Your task to perform on an android device: manage bookmarks in the chrome app Image 0: 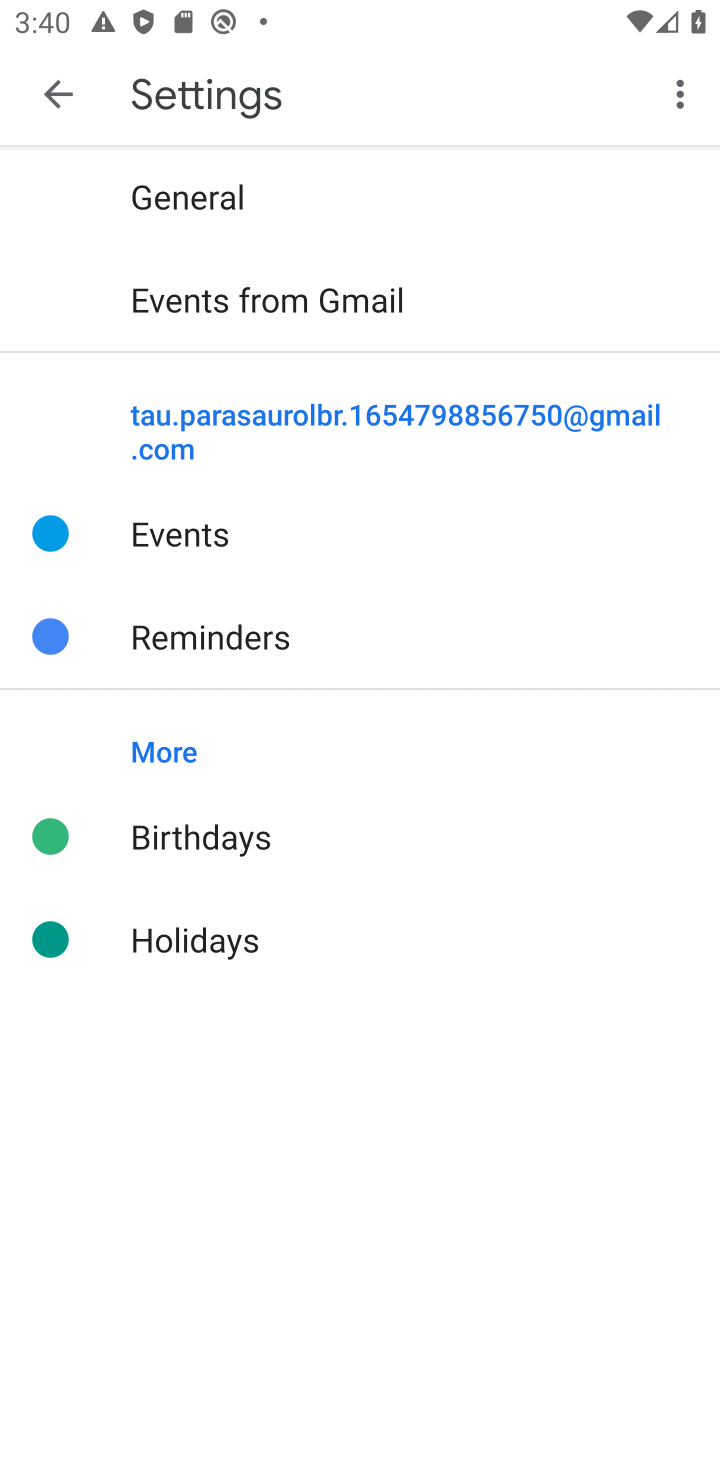
Step 0: press home button
Your task to perform on an android device: manage bookmarks in the chrome app Image 1: 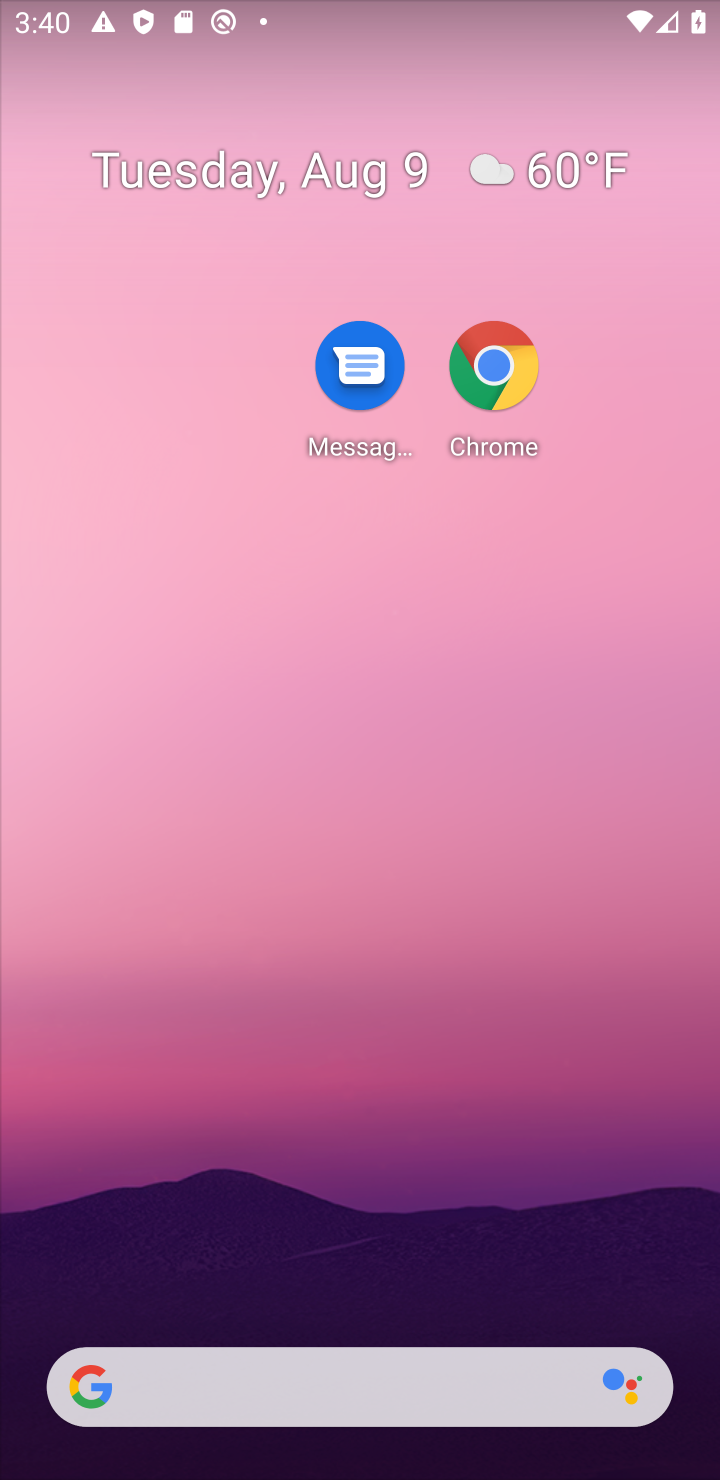
Step 1: click (511, 349)
Your task to perform on an android device: manage bookmarks in the chrome app Image 2: 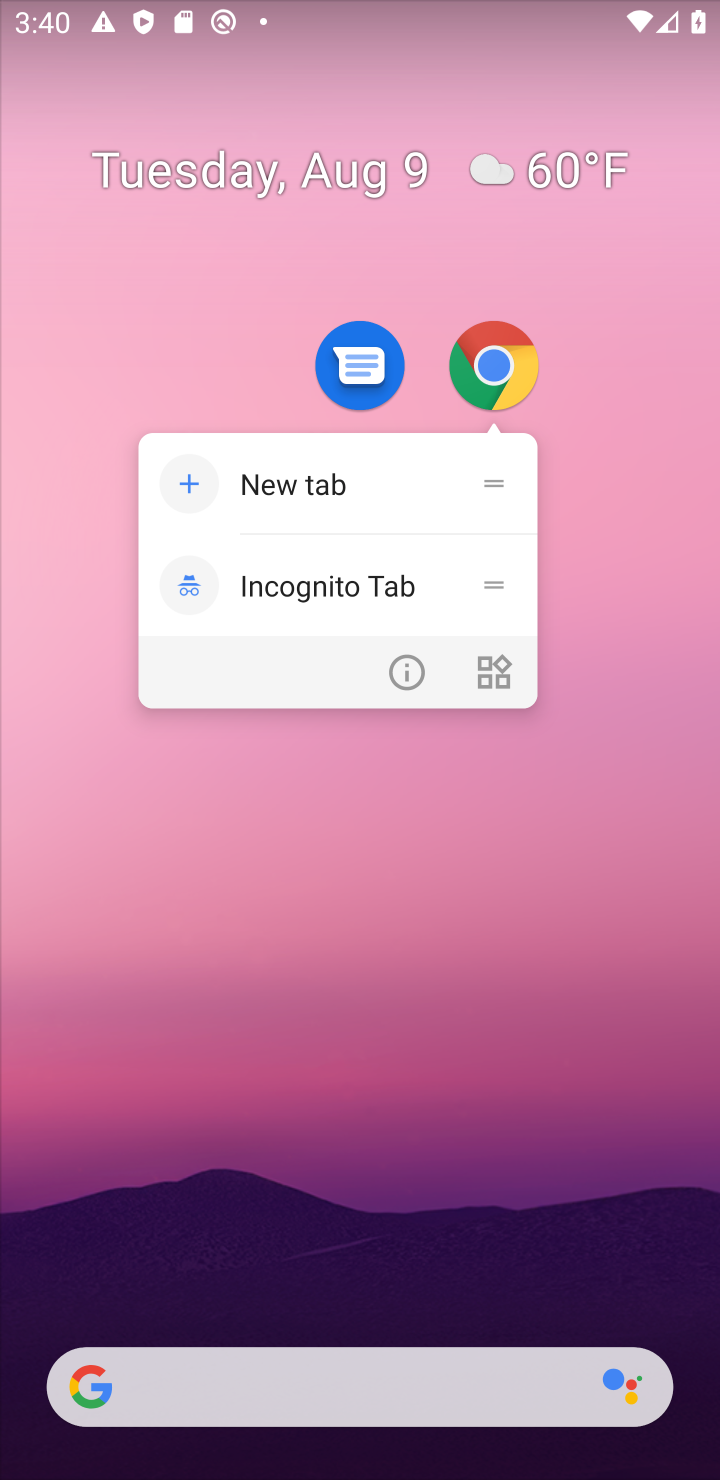
Step 2: click (492, 364)
Your task to perform on an android device: manage bookmarks in the chrome app Image 3: 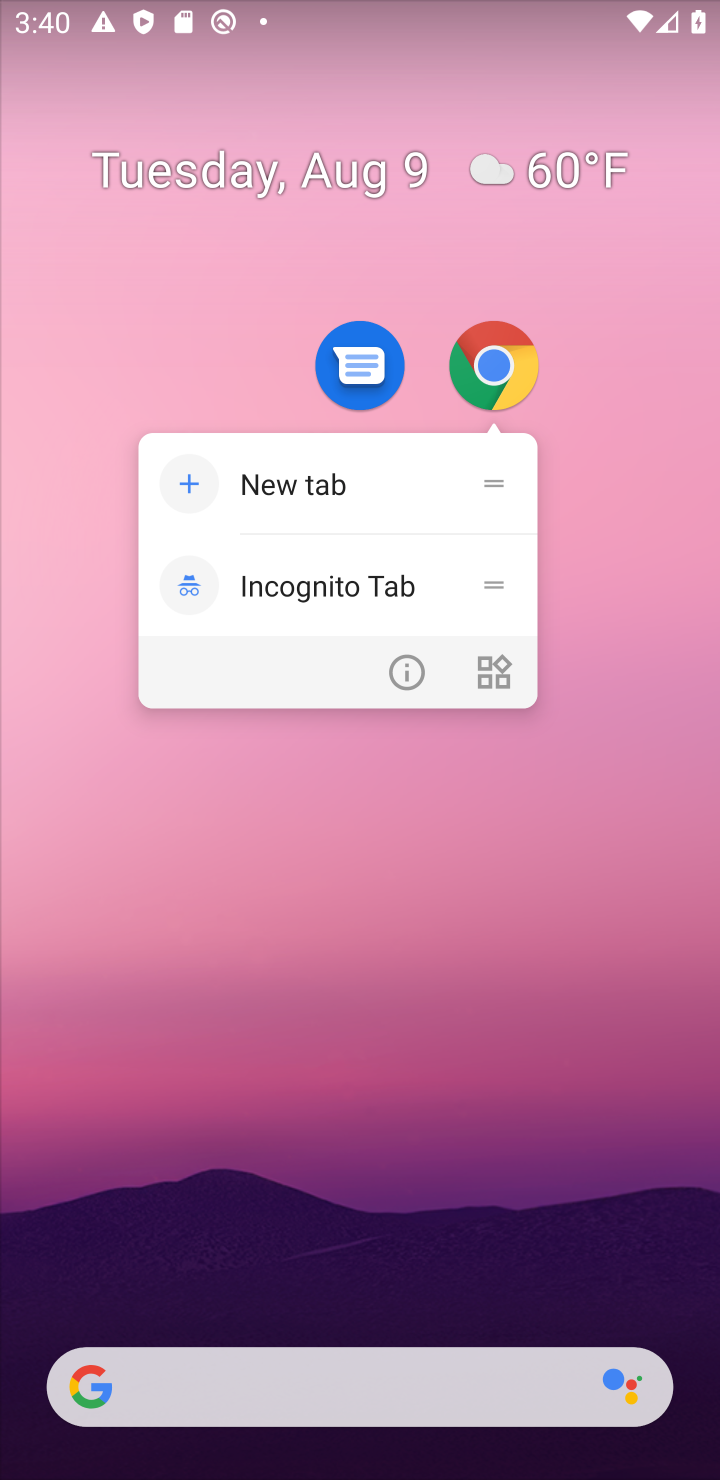
Step 3: click (390, 1281)
Your task to perform on an android device: manage bookmarks in the chrome app Image 4: 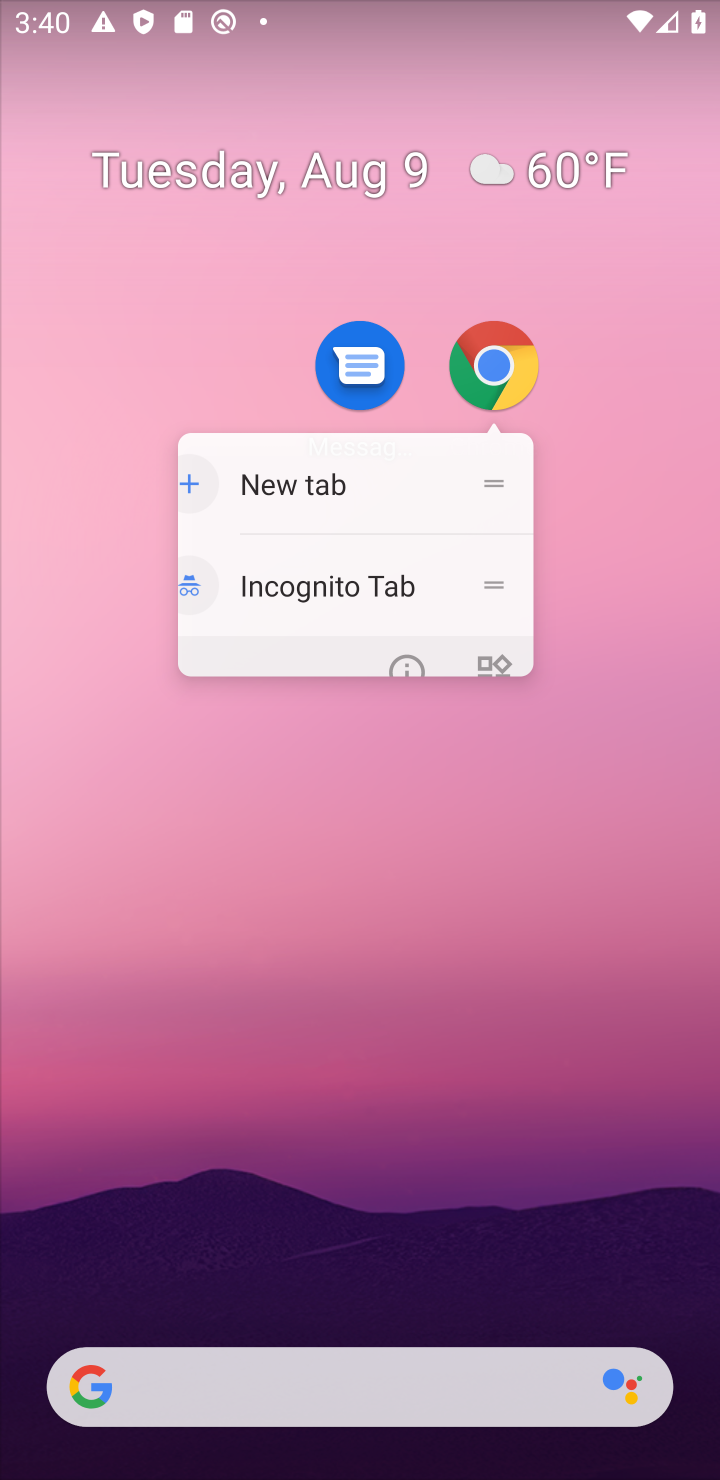
Step 4: drag from (385, 1150) to (440, 497)
Your task to perform on an android device: manage bookmarks in the chrome app Image 5: 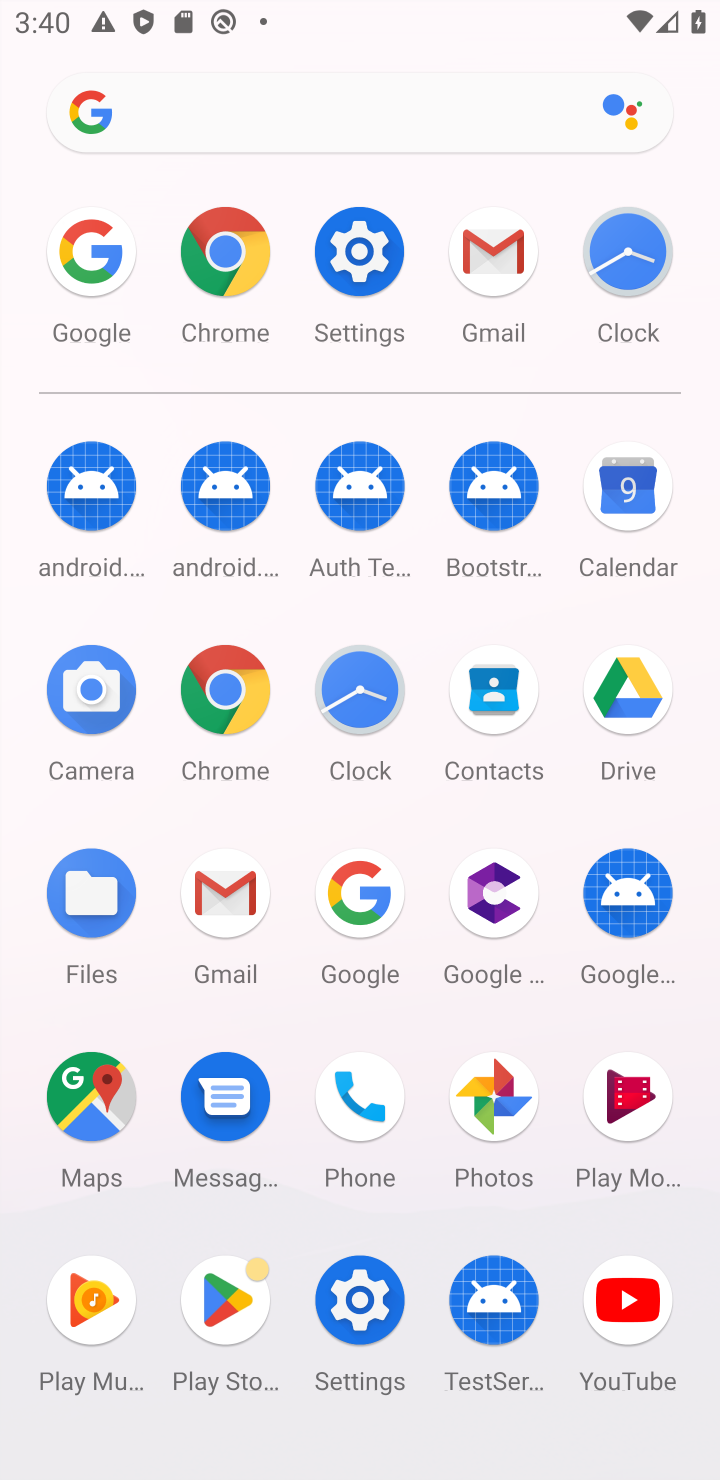
Step 5: click (229, 271)
Your task to perform on an android device: manage bookmarks in the chrome app Image 6: 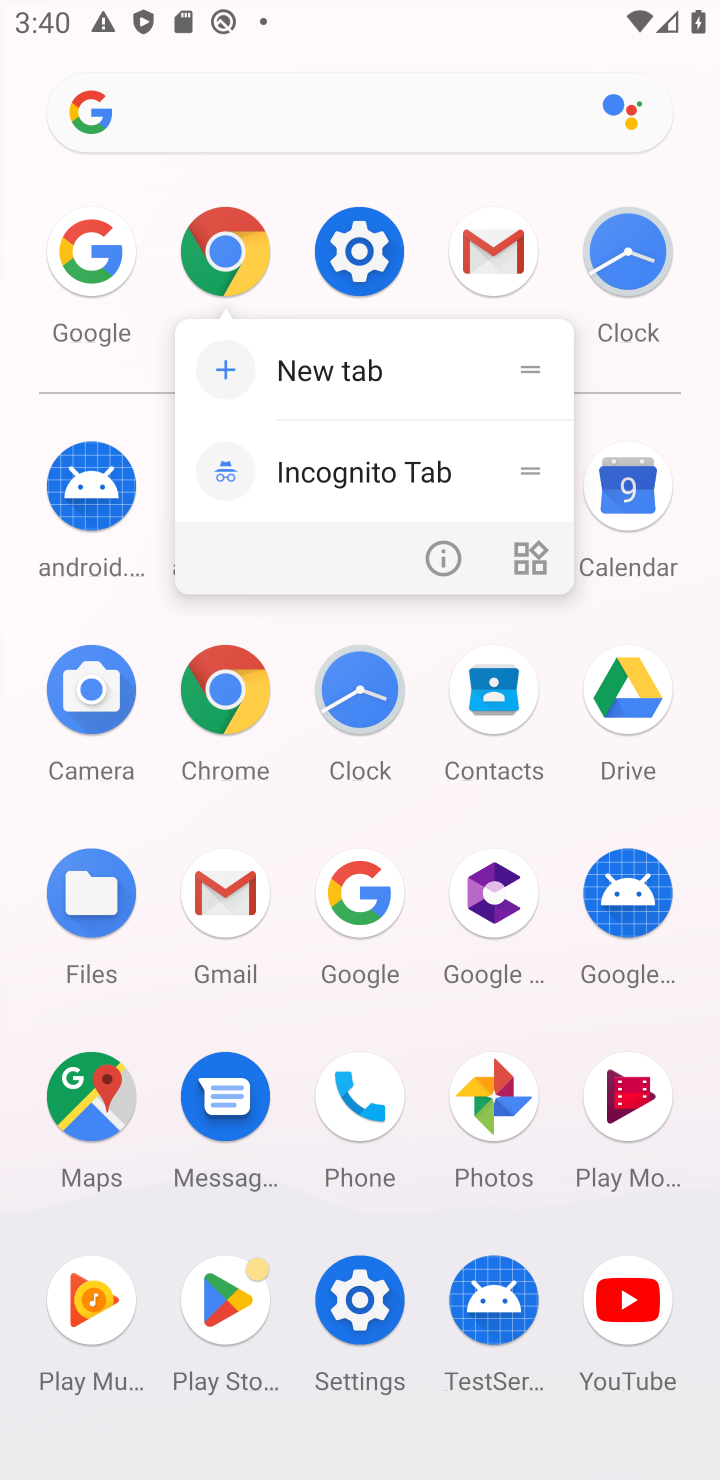
Step 6: click (211, 251)
Your task to perform on an android device: manage bookmarks in the chrome app Image 7: 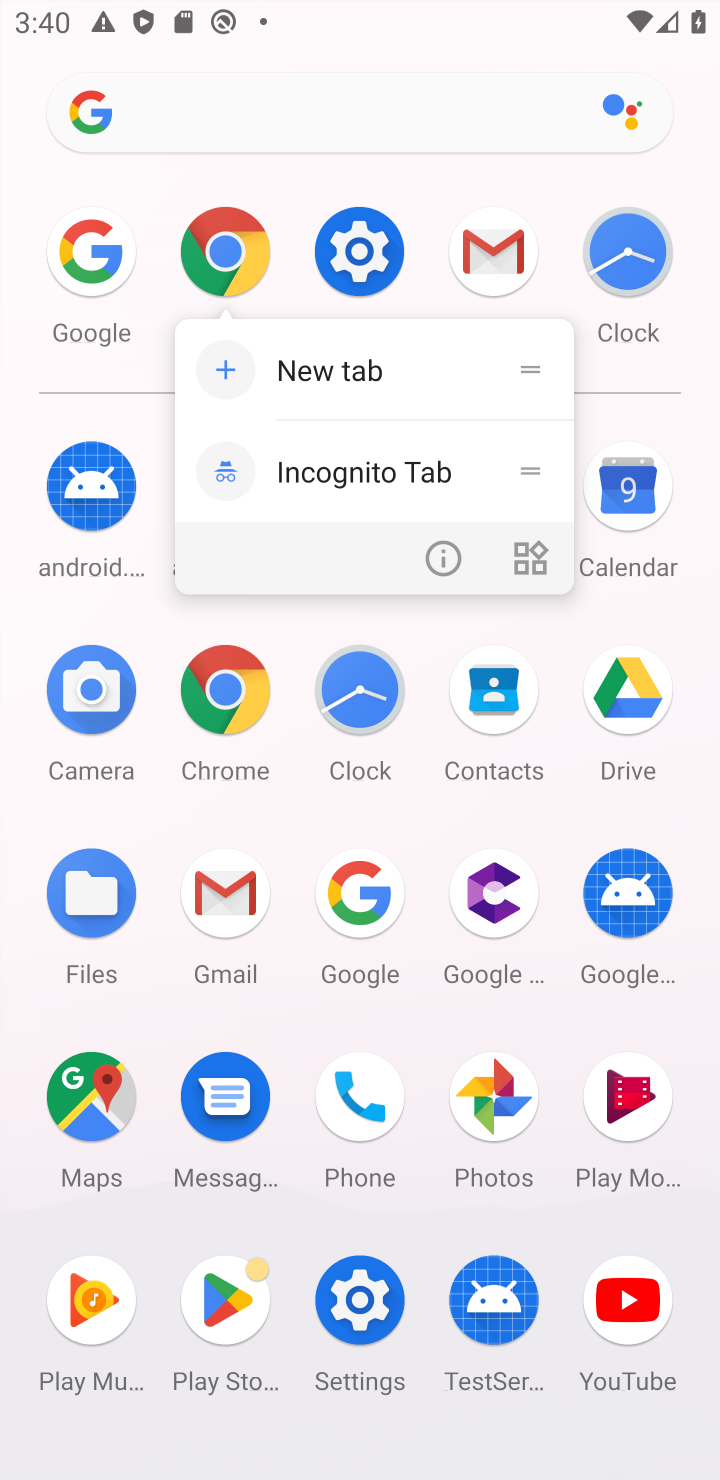
Step 7: click (211, 251)
Your task to perform on an android device: manage bookmarks in the chrome app Image 8: 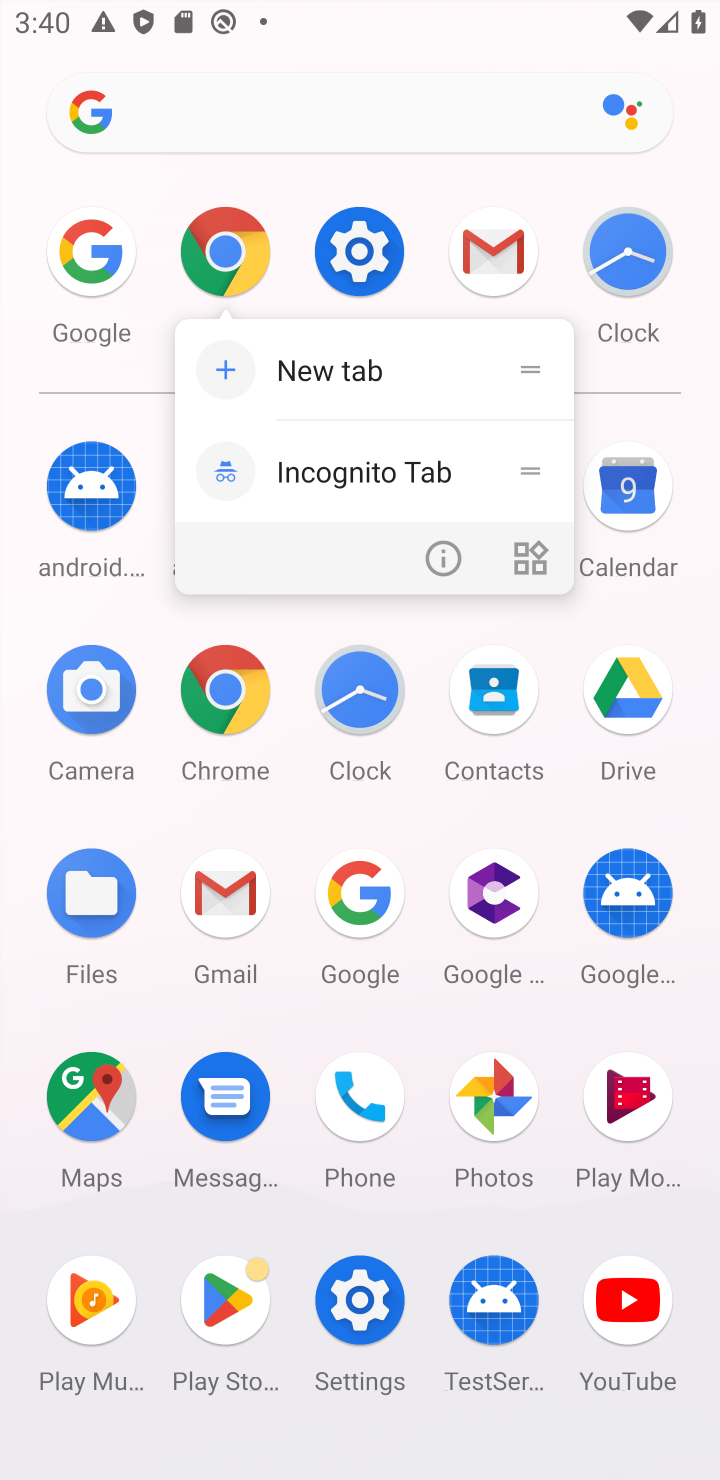
Step 8: click (211, 251)
Your task to perform on an android device: manage bookmarks in the chrome app Image 9: 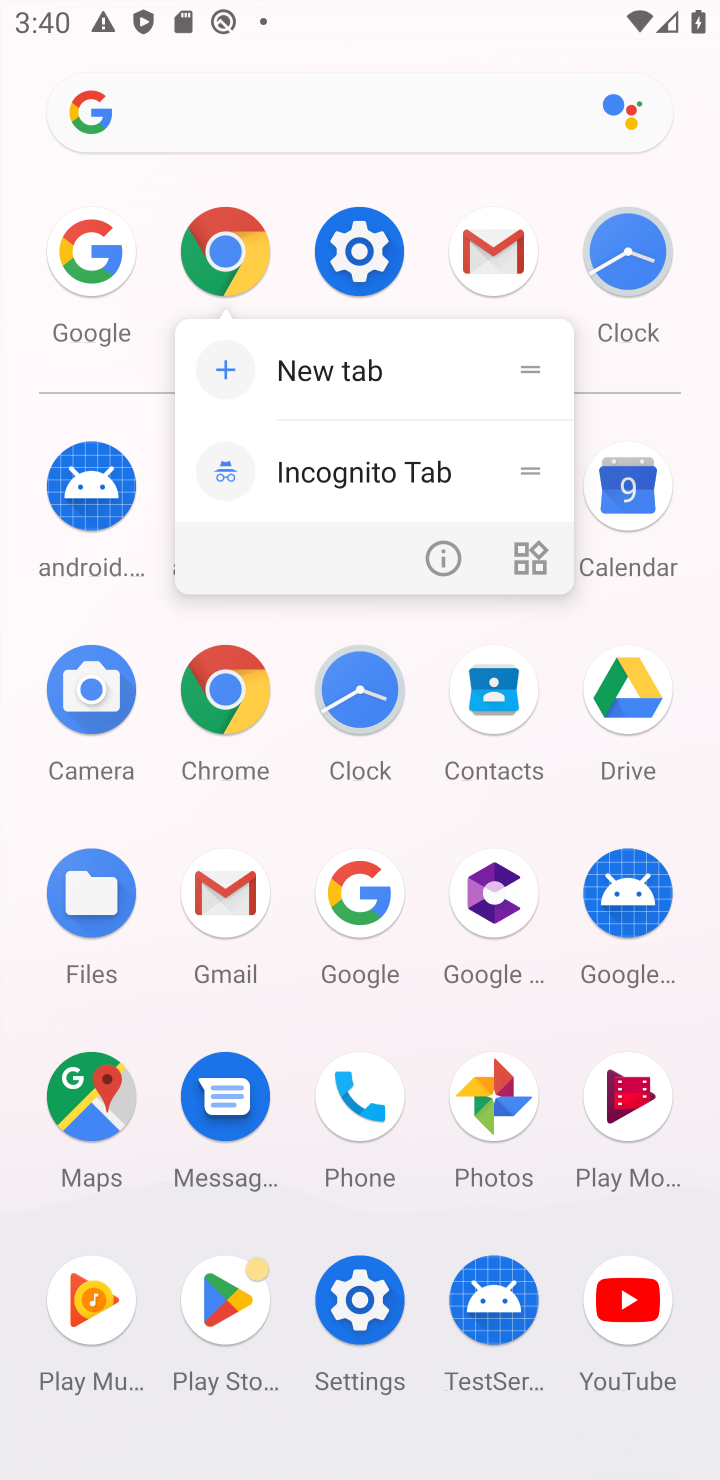
Step 9: click (230, 705)
Your task to perform on an android device: manage bookmarks in the chrome app Image 10: 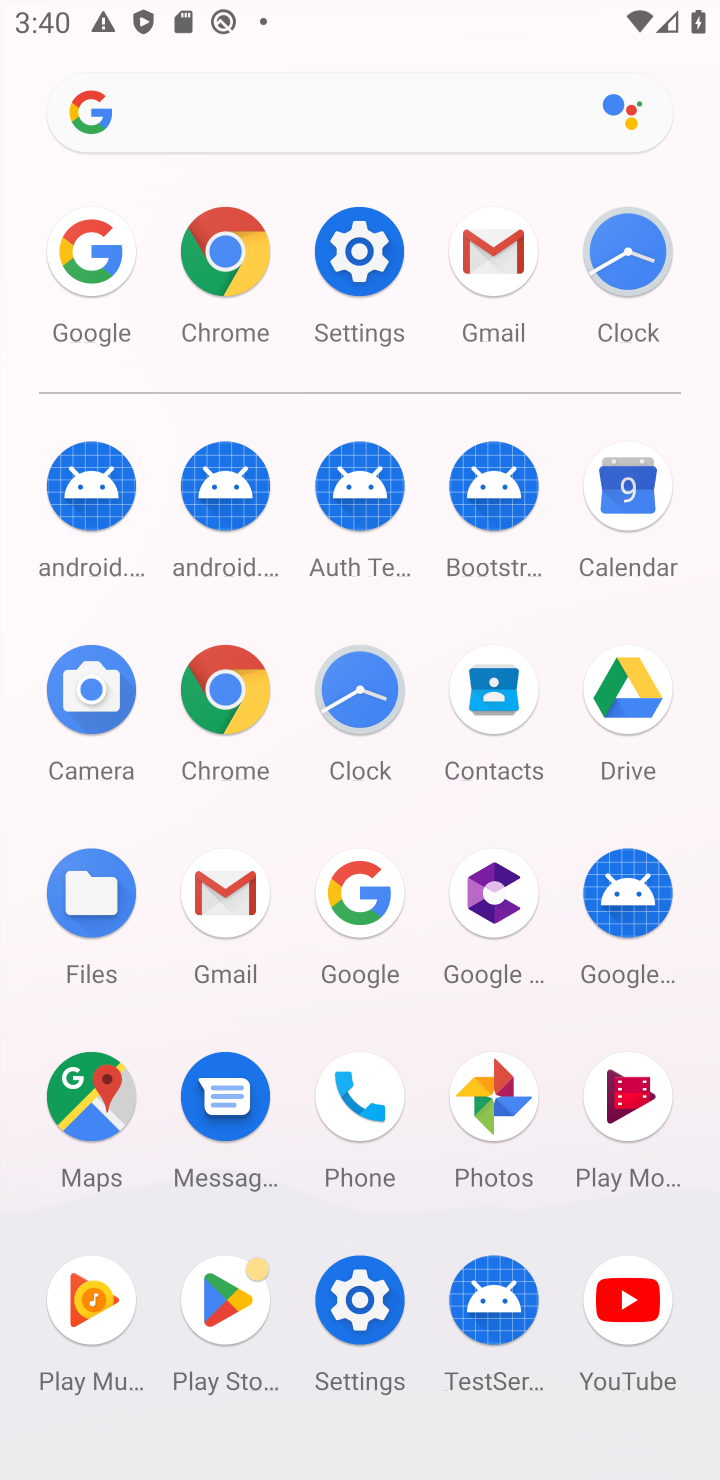
Step 10: click (228, 681)
Your task to perform on an android device: manage bookmarks in the chrome app Image 11: 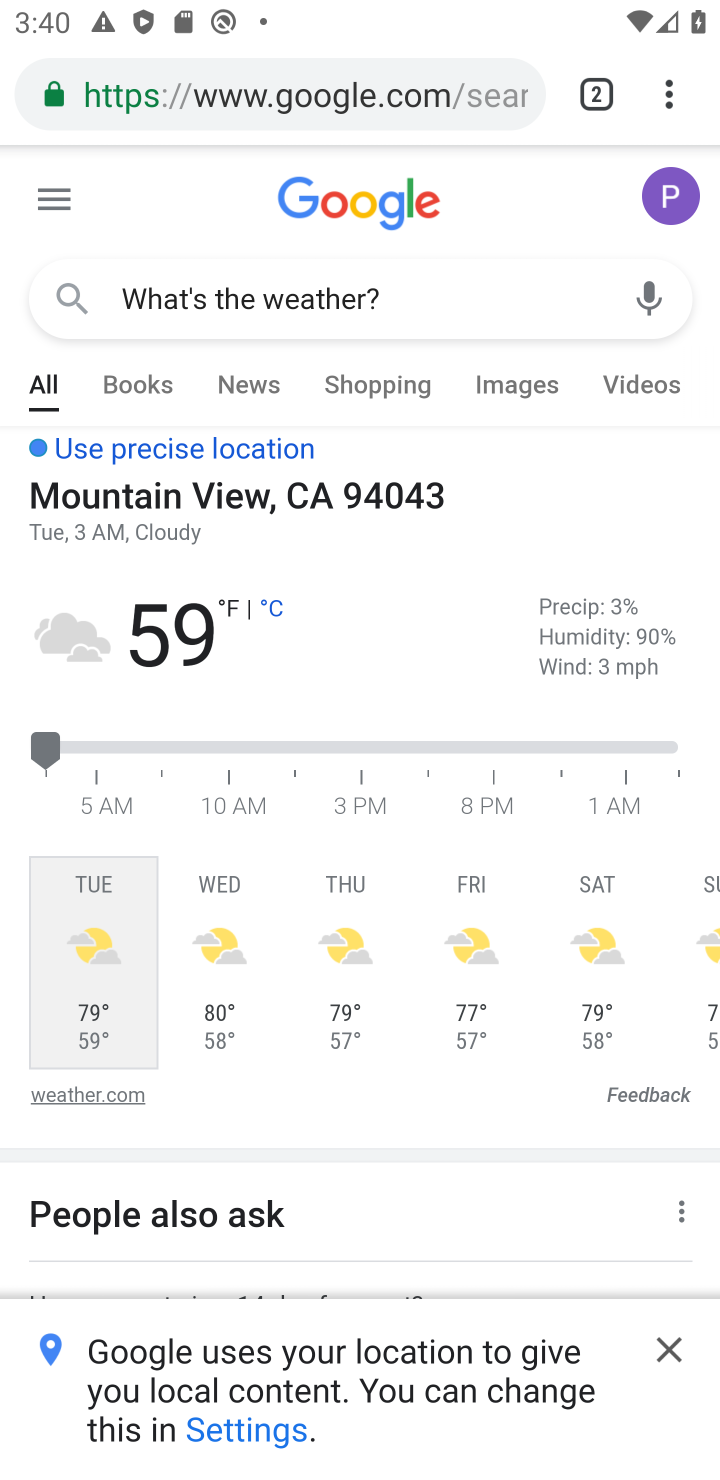
Step 11: click (686, 81)
Your task to perform on an android device: manage bookmarks in the chrome app Image 12: 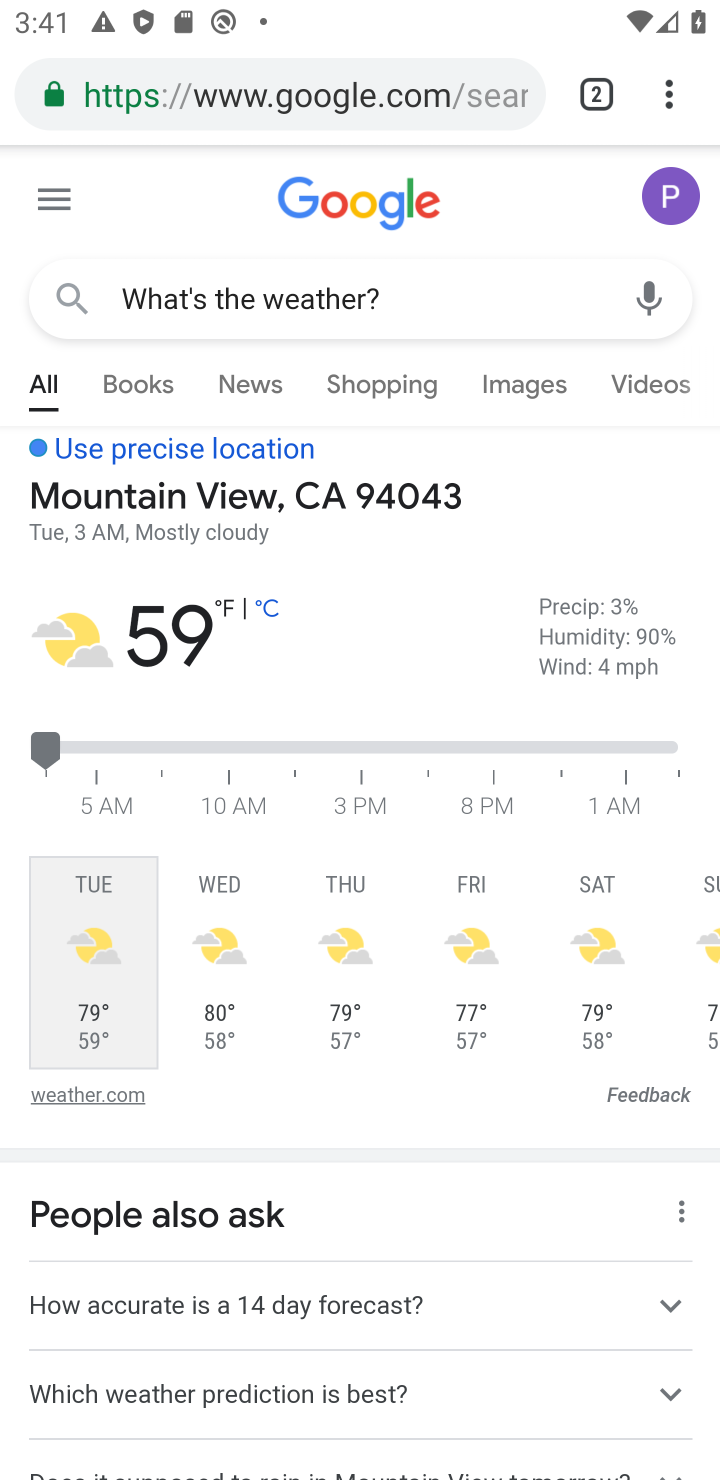
Step 12: click (652, 117)
Your task to perform on an android device: manage bookmarks in the chrome app Image 13: 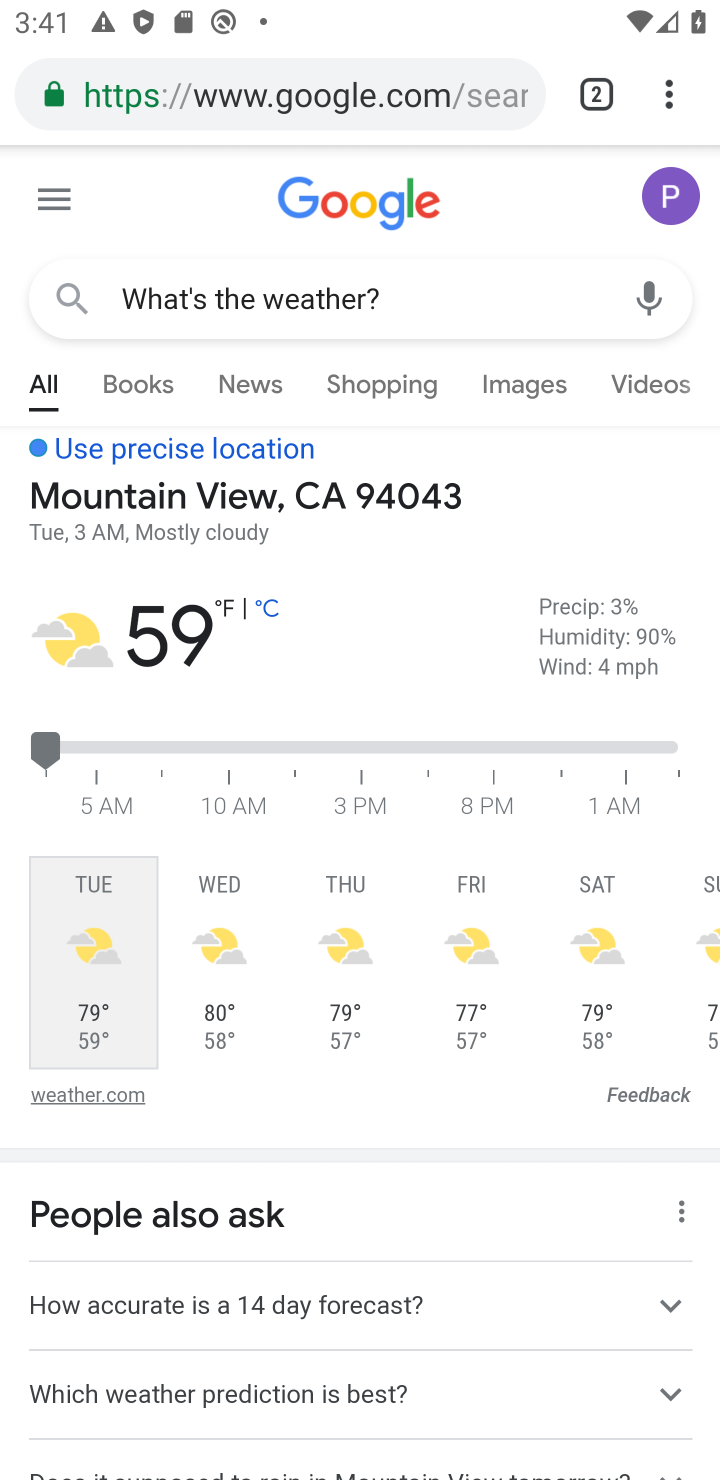
Step 13: click (667, 75)
Your task to perform on an android device: manage bookmarks in the chrome app Image 14: 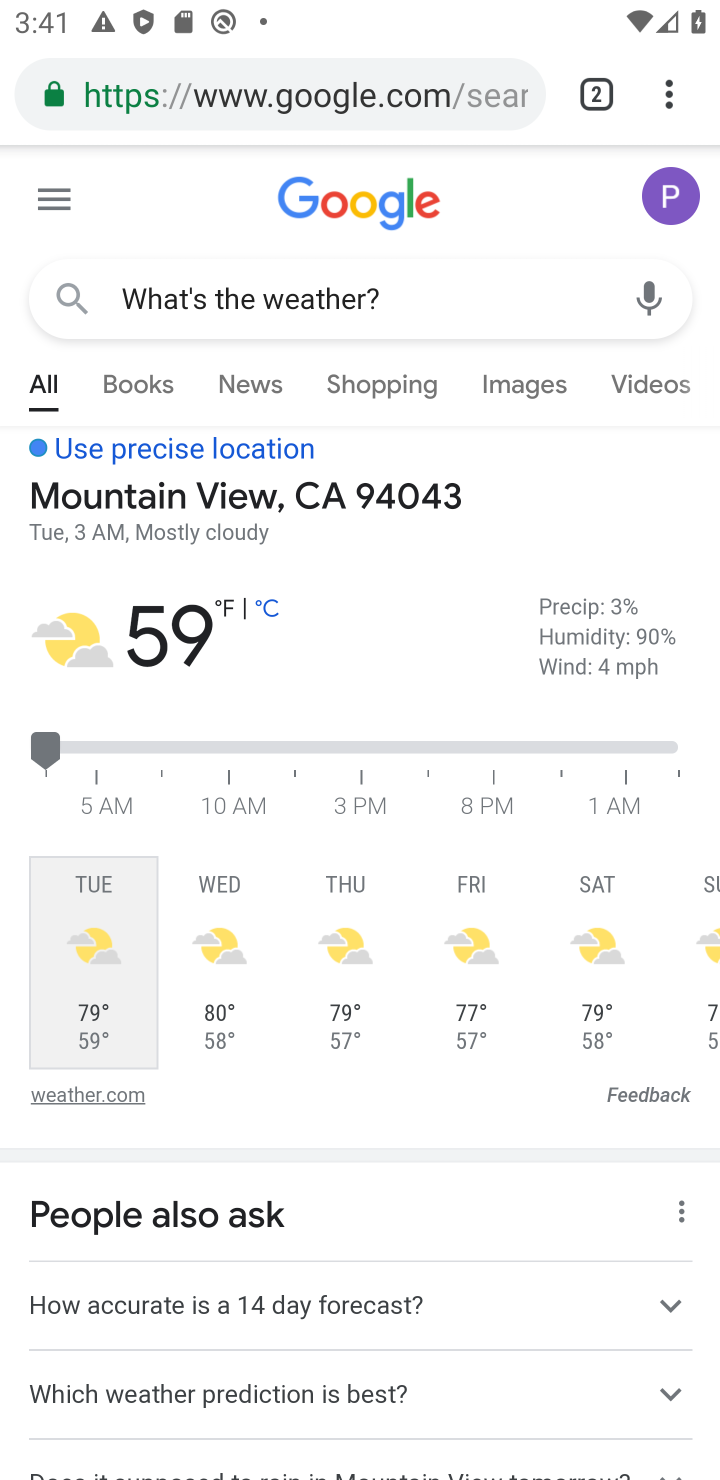
Step 14: click (667, 75)
Your task to perform on an android device: manage bookmarks in the chrome app Image 15: 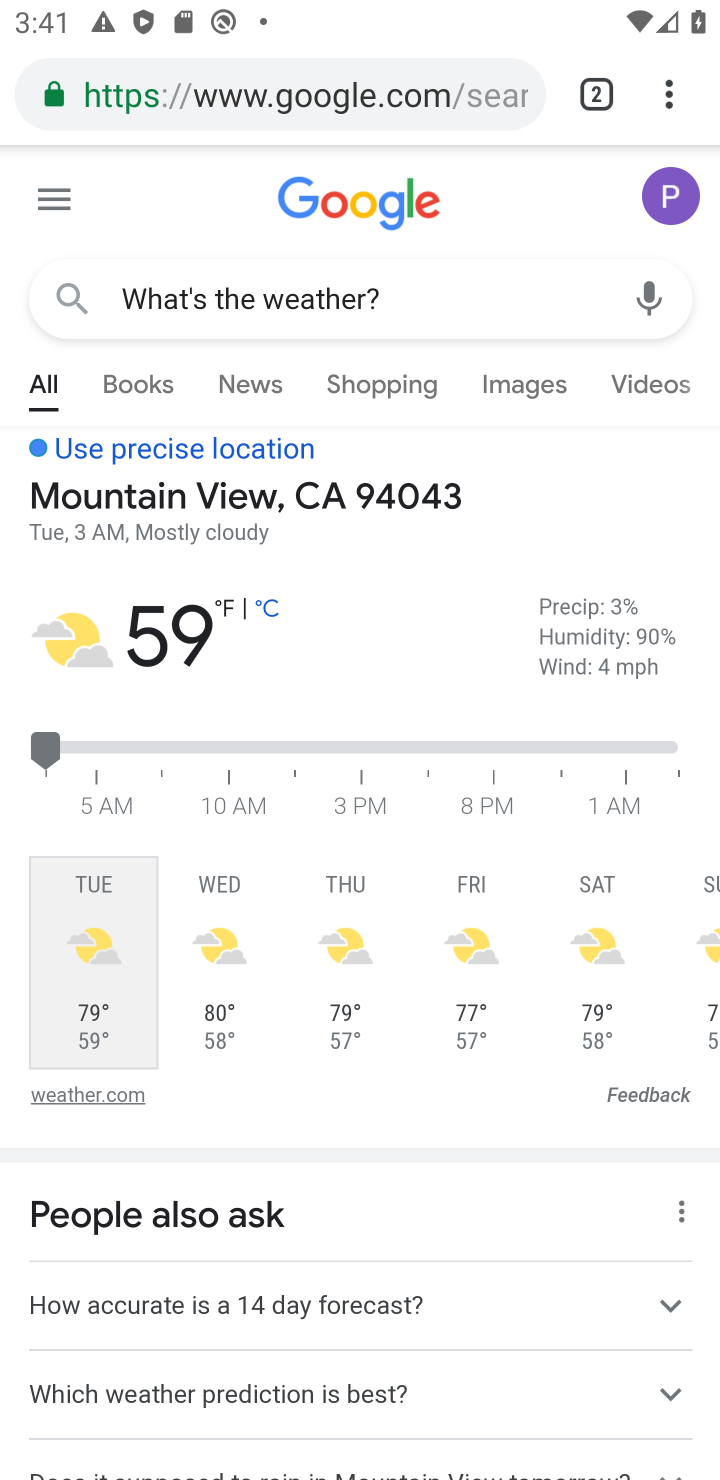
Step 15: click (667, 75)
Your task to perform on an android device: manage bookmarks in the chrome app Image 16: 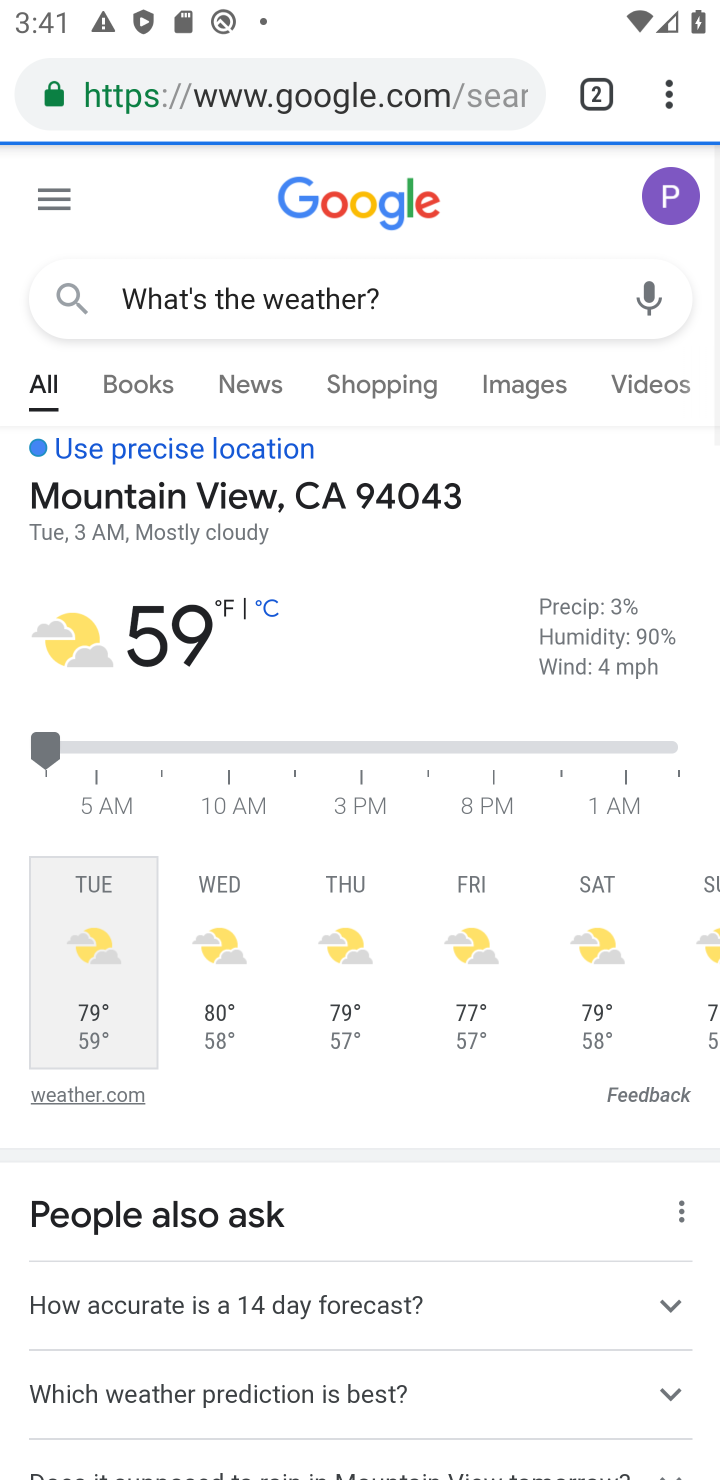
Step 16: click (684, 106)
Your task to perform on an android device: manage bookmarks in the chrome app Image 17: 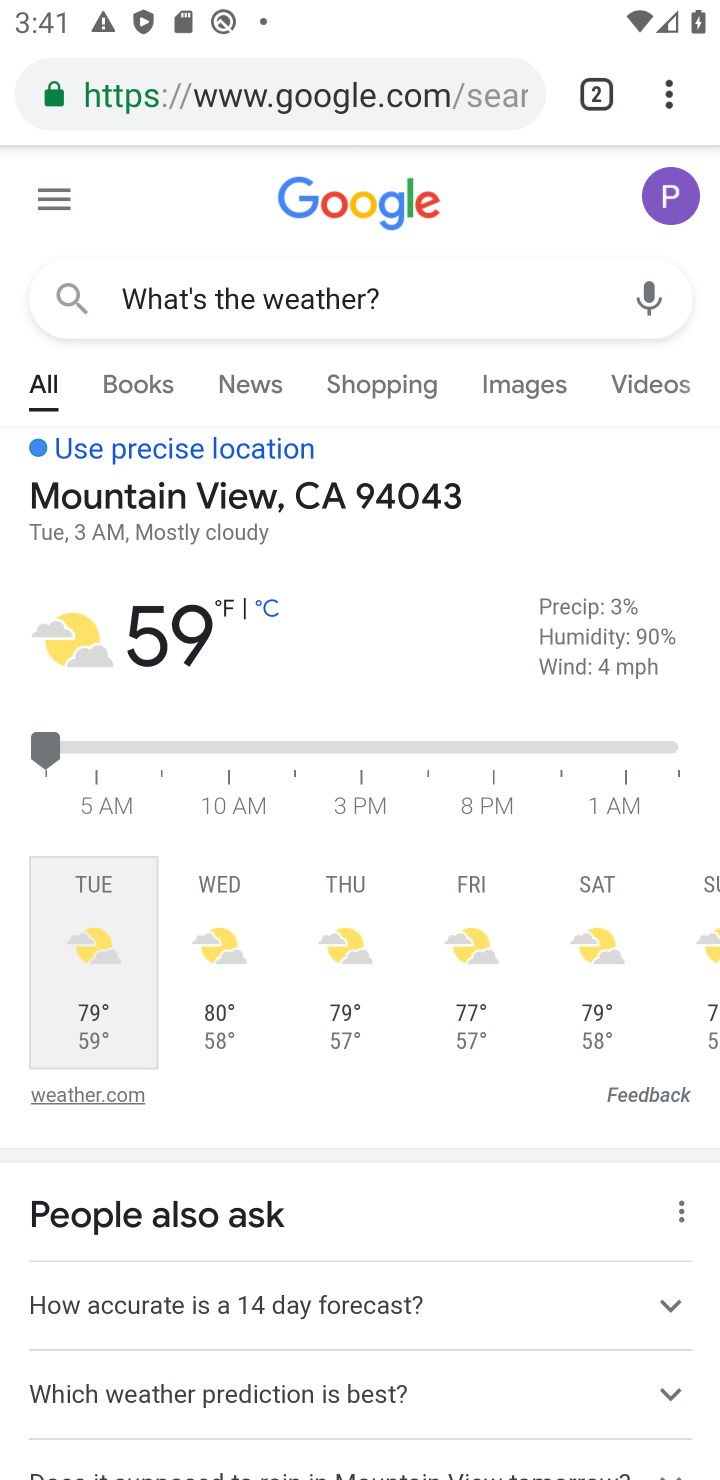
Step 17: click (669, 92)
Your task to perform on an android device: manage bookmarks in the chrome app Image 18: 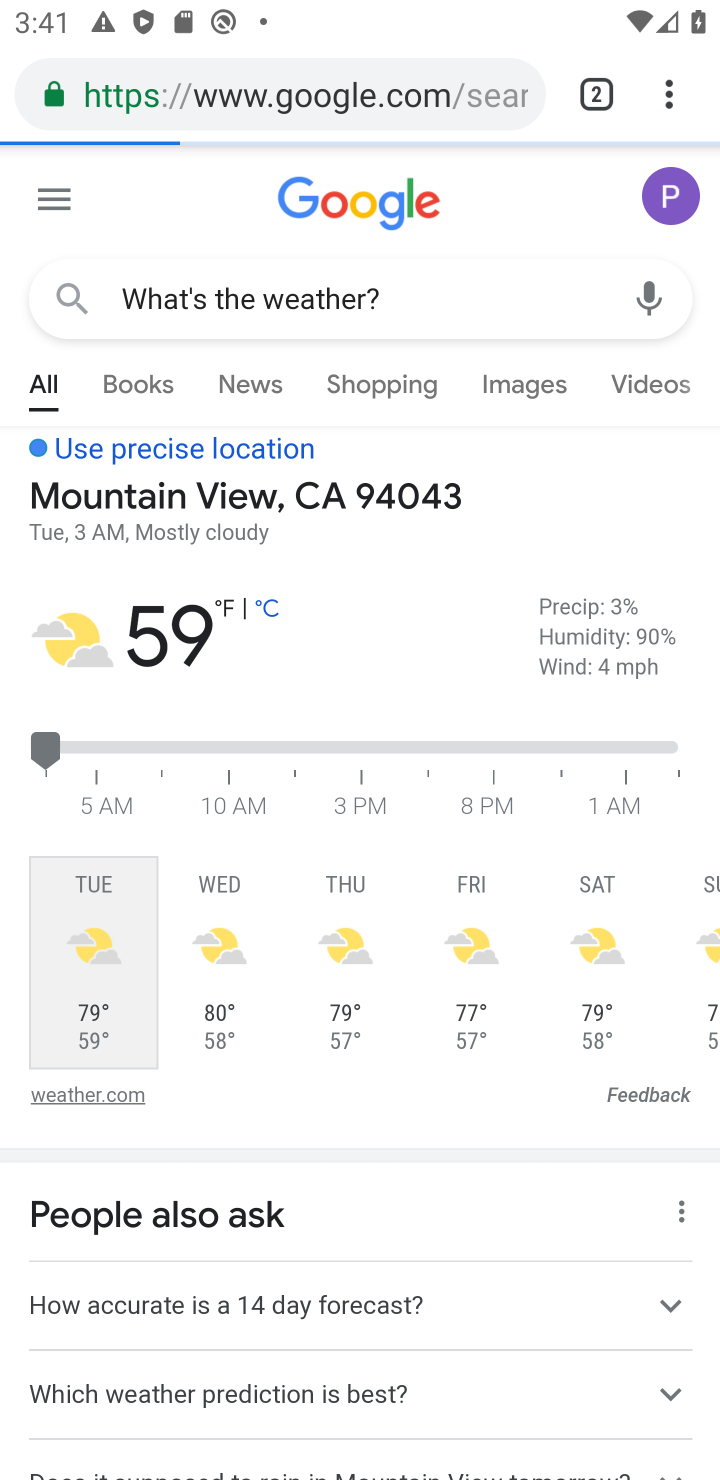
Step 18: click (669, 92)
Your task to perform on an android device: manage bookmarks in the chrome app Image 19: 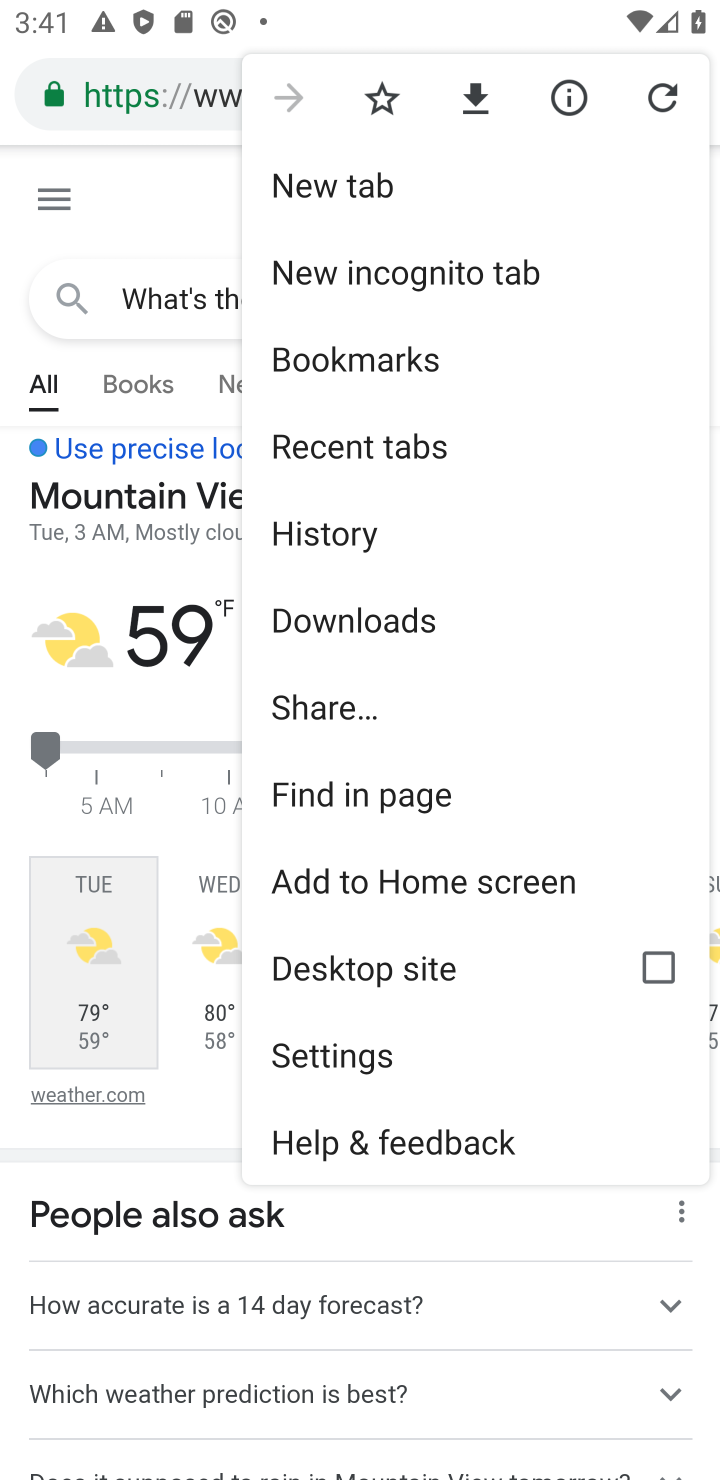
Step 19: click (391, 340)
Your task to perform on an android device: manage bookmarks in the chrome app Image 20: 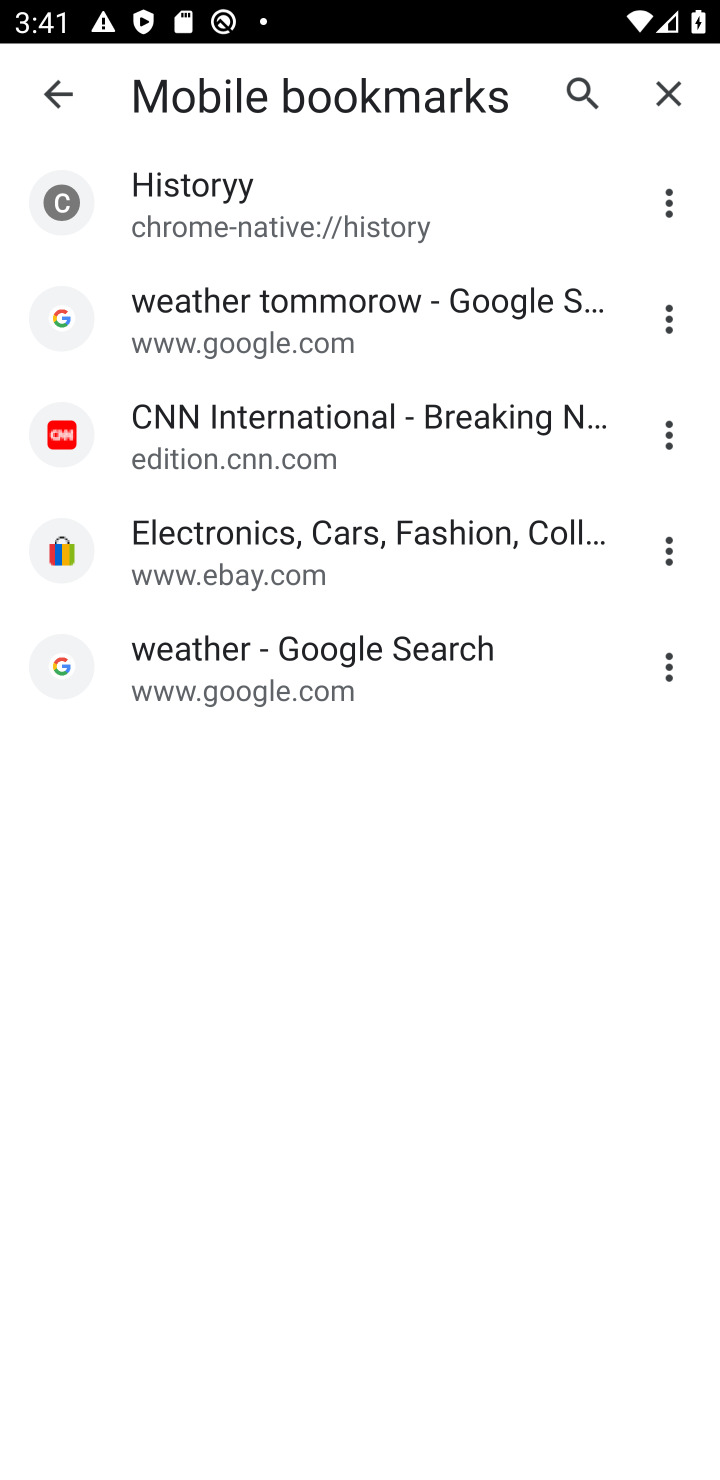
Step 20: click (354, 321)
Your task to perform on an android device: manage bookmarks in the chrome app Image 21: 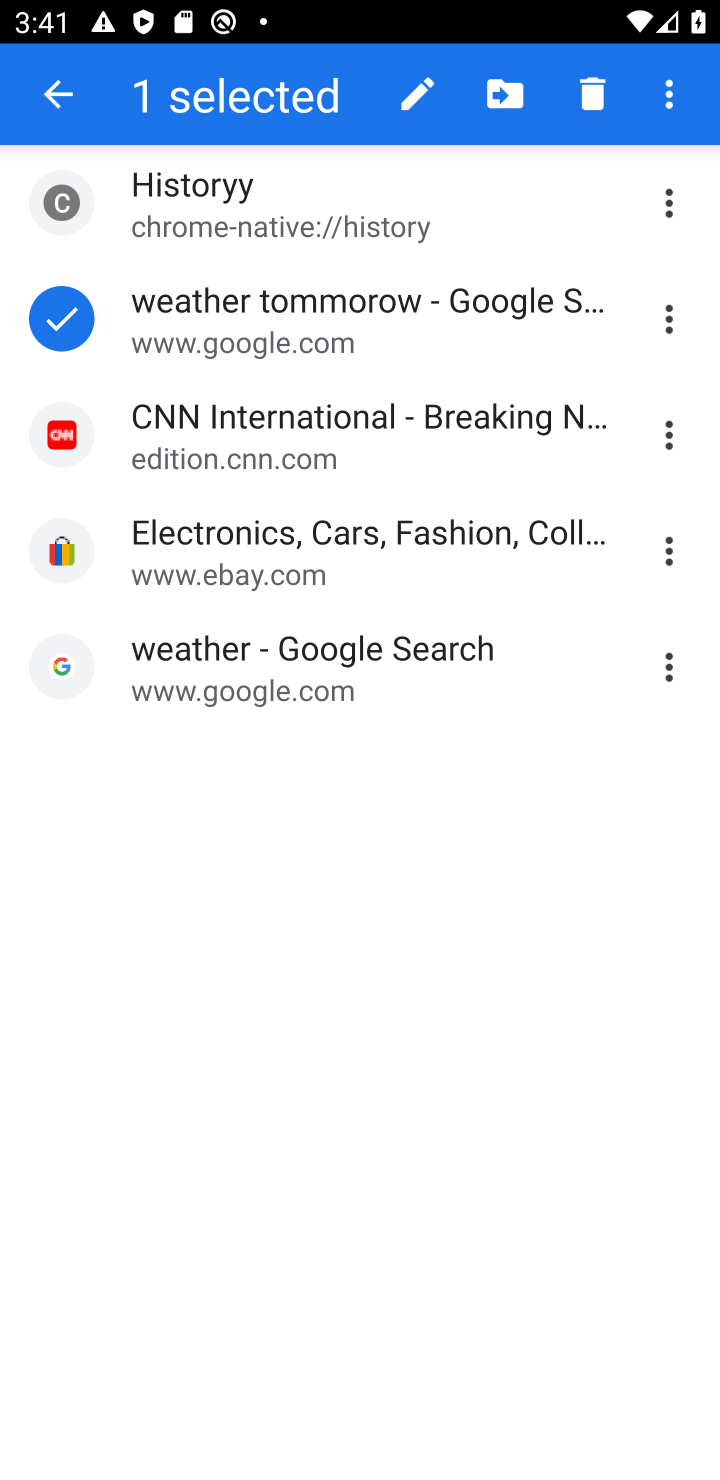
Step 21: click (294, 451)
Your task to perform on an android device: manage bookmarks in the chrome app Image 22: 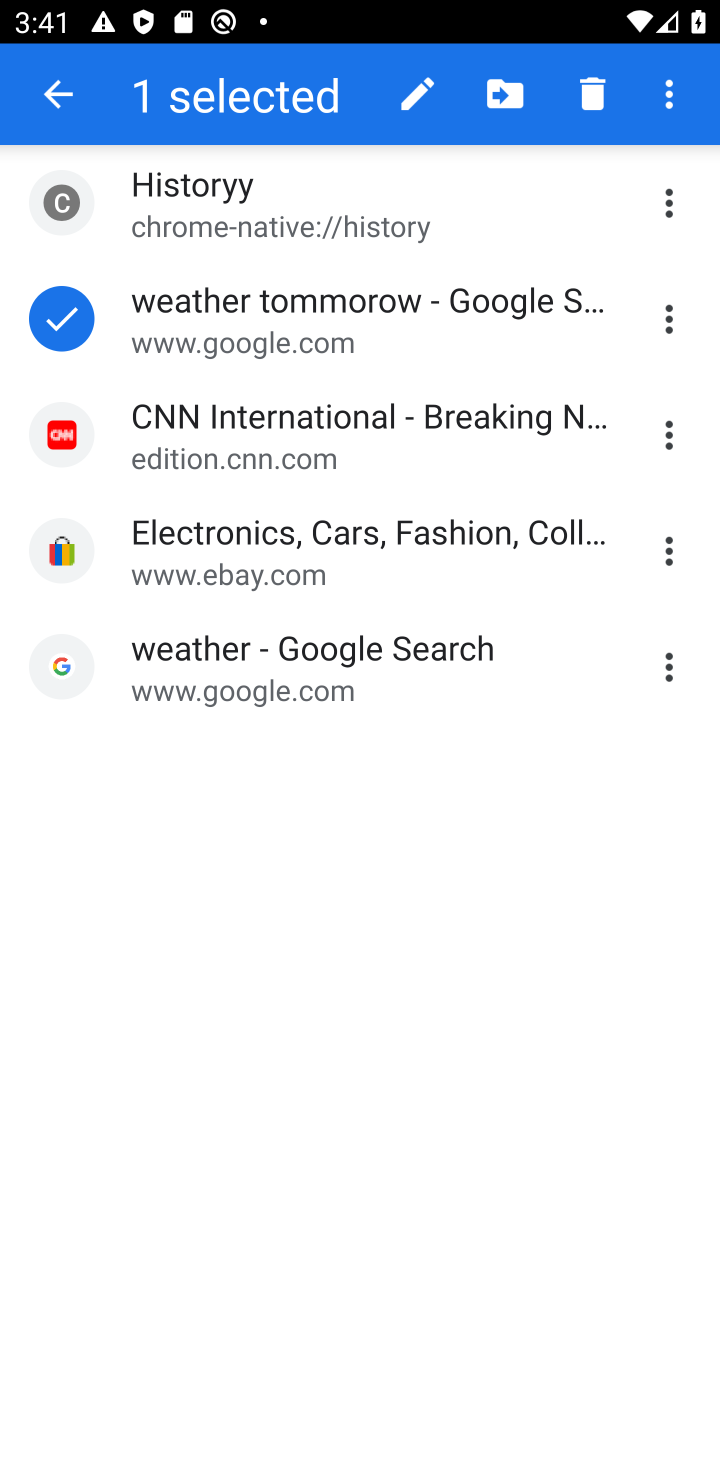
Step 22: drag from (290, 538) to (282, 655)
Your task to perform on an android device: manage bookmarks in the chrome app Image 23: 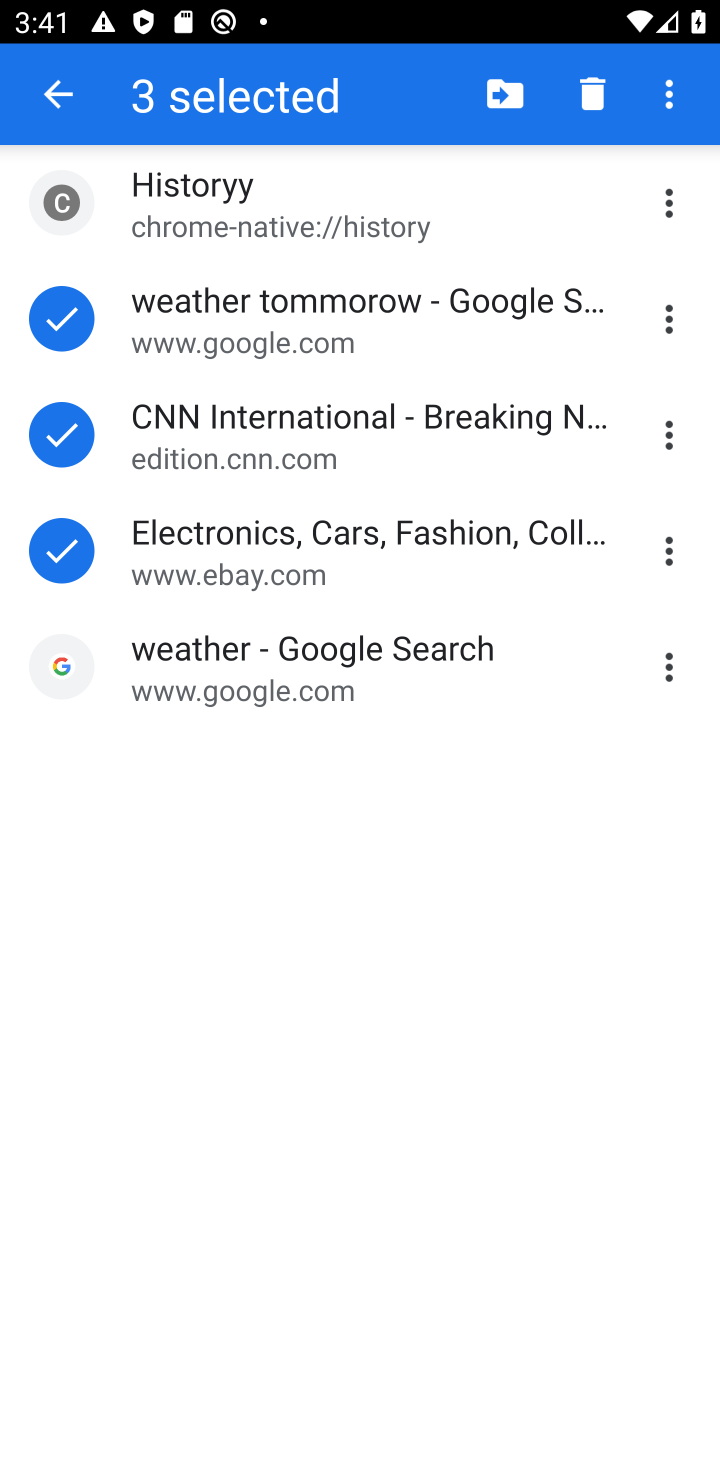
Step 23: click (515, 95)
Your task to perform on an android device: manage bookmarks in the chrome app Image 24: 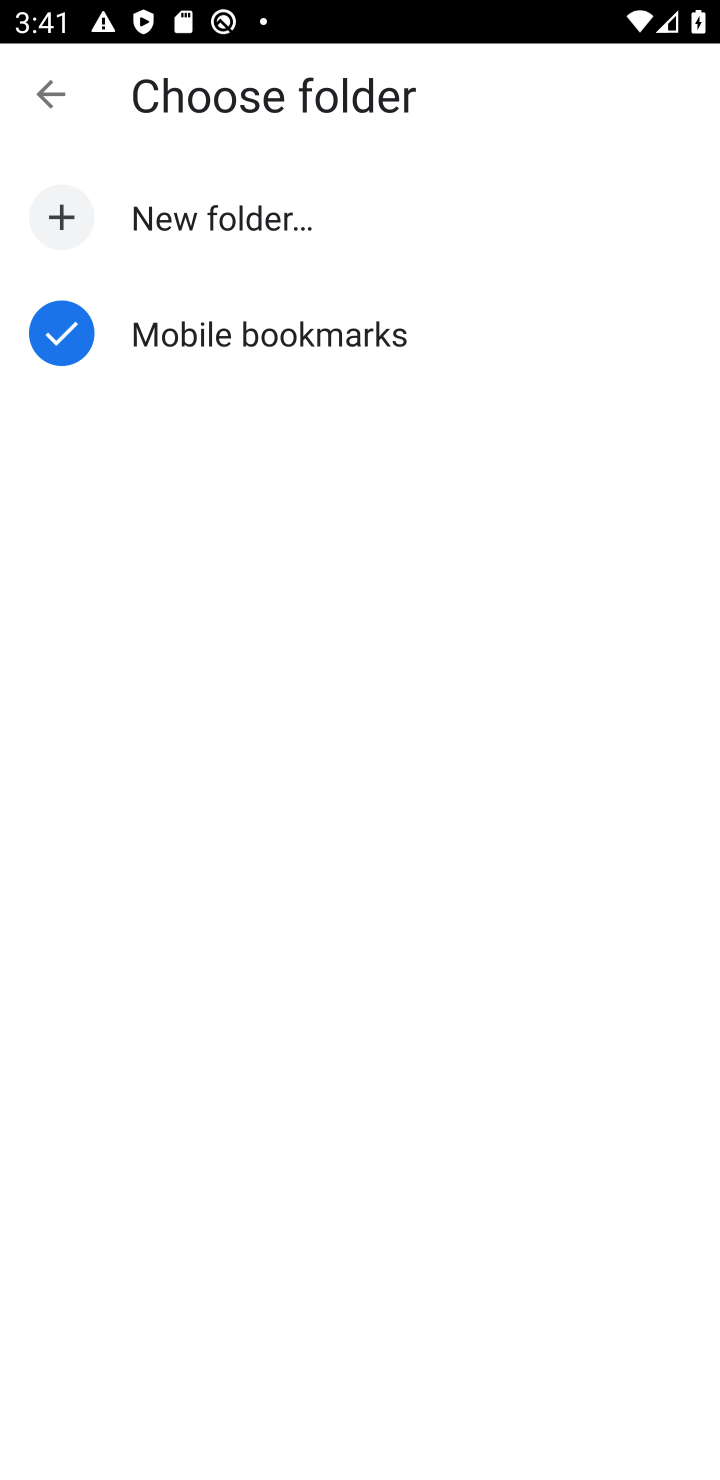
Step 24: click (229, 248)
Your task to perform on an android device: manage bookmarks in the chrome app Image 25: 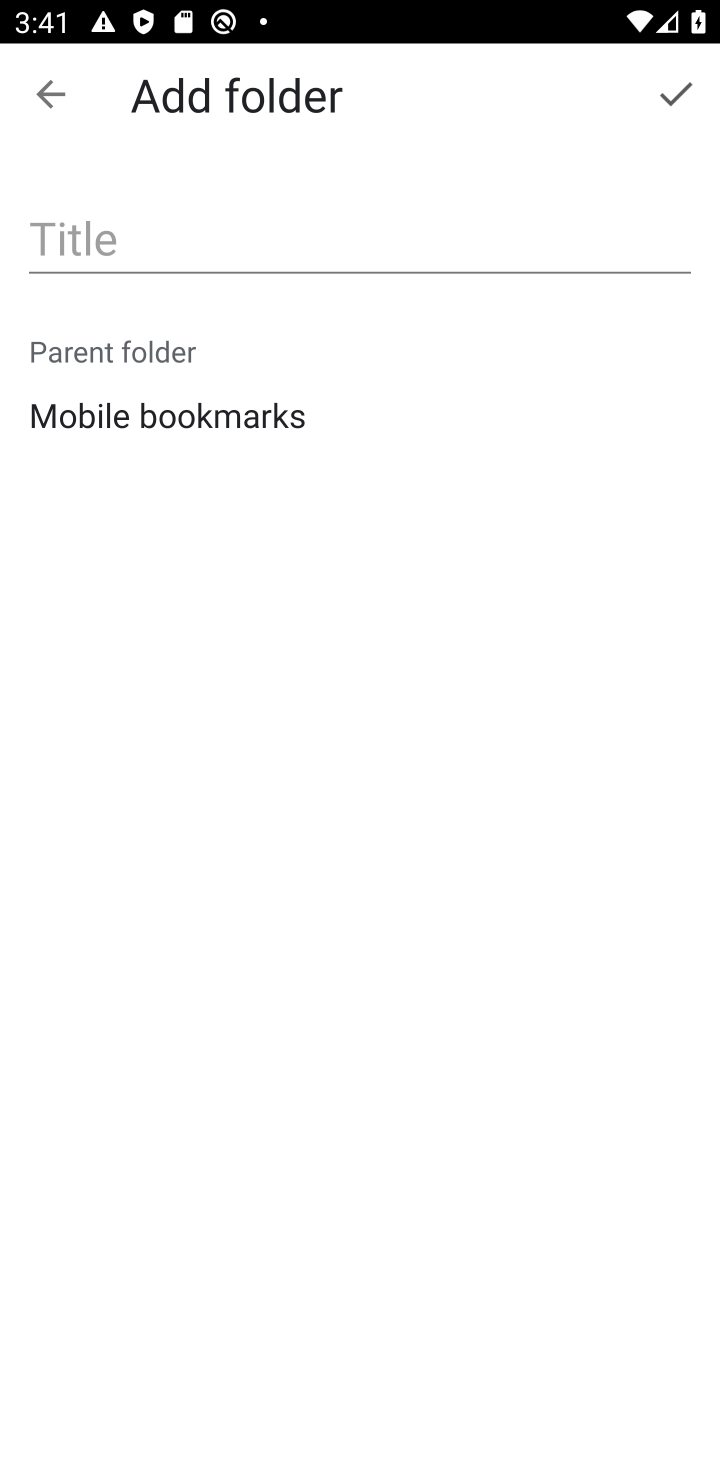
Step 25: click (266, 212)
Your task to perform on an android device: manage bookmarks in the chrome app Image 26: 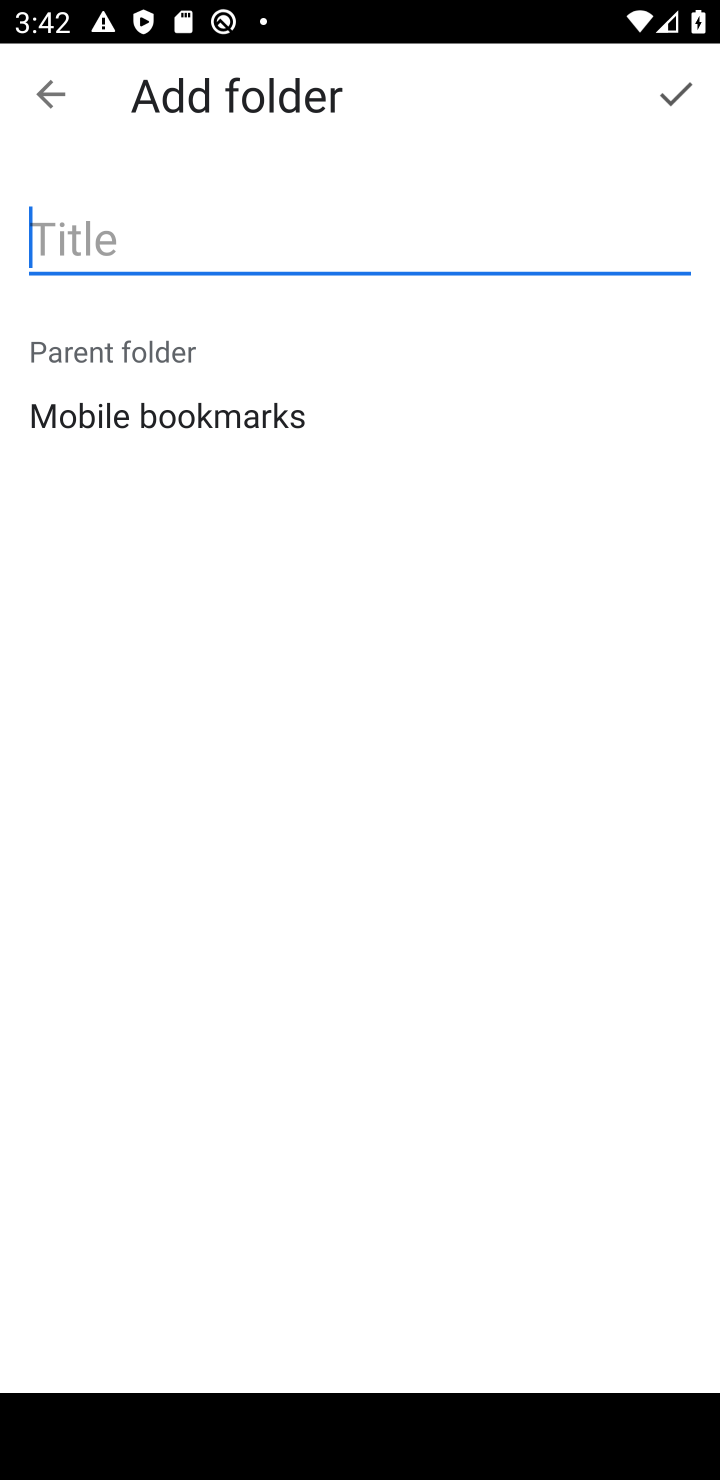
Step 26: type "jjjjjjjjjjjjjj "
Your task to perform on an android device: manage bookmarks in the chrome app Image 27: 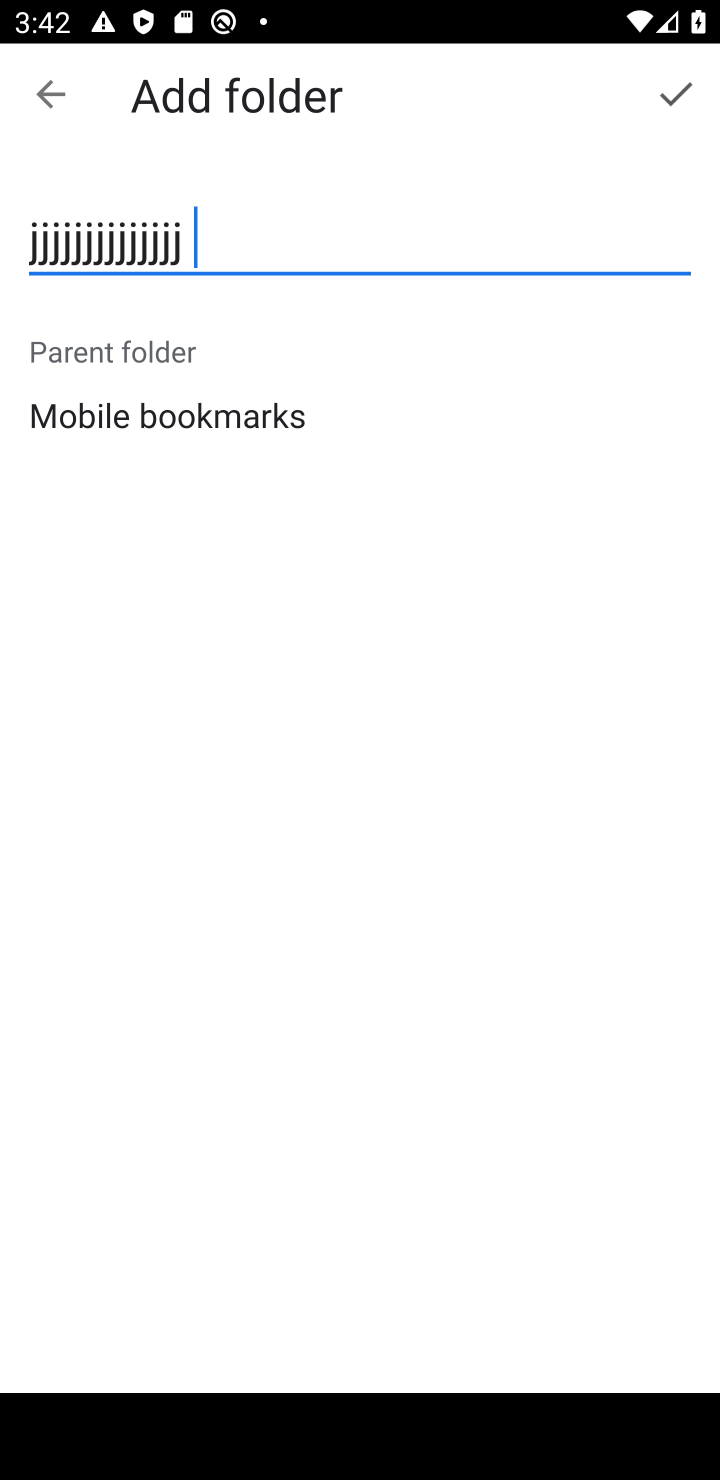
Step 27: click (654, 83)
Your task to perform on an android device: manage bookmarks in the chrome app Image 28: 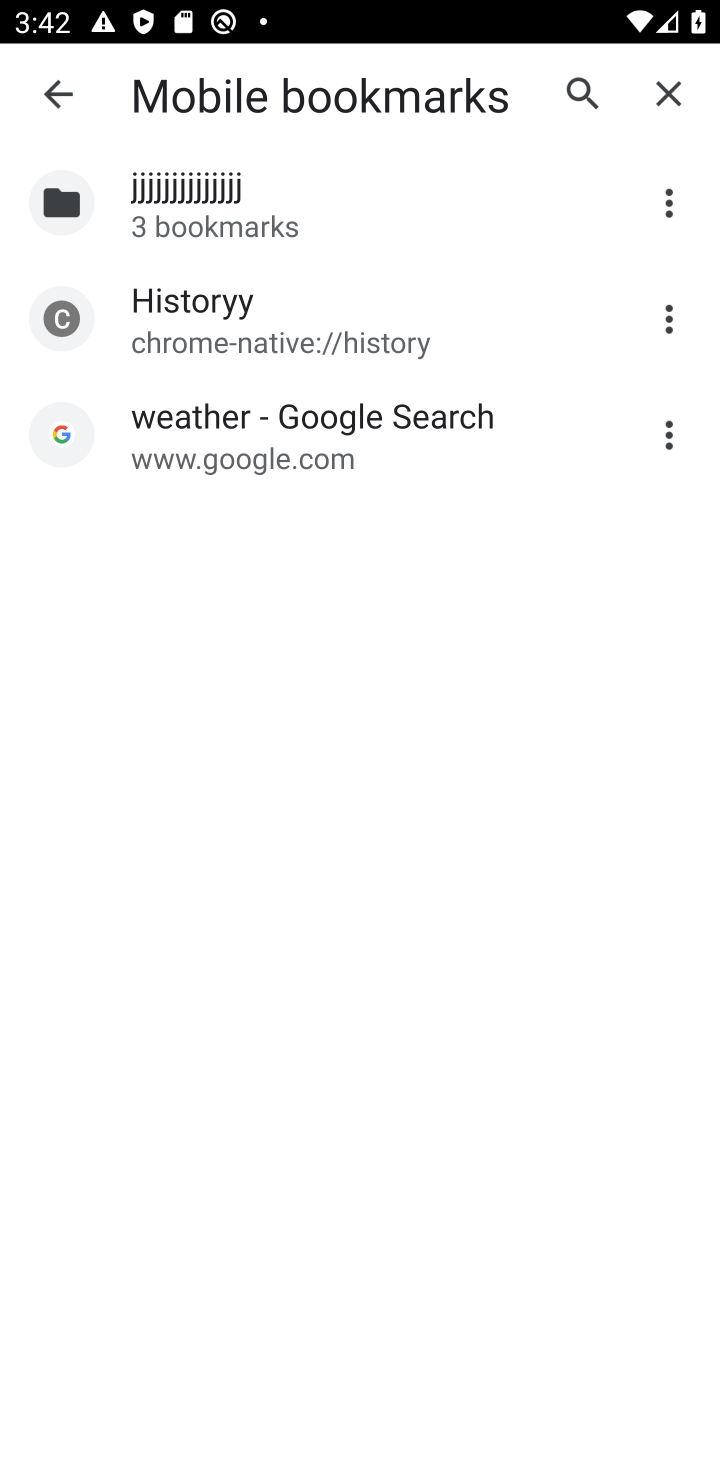
Step 28: click (208, 214)
Your task to perform on an android device: manage bookmarks in the chrome app Image 29: 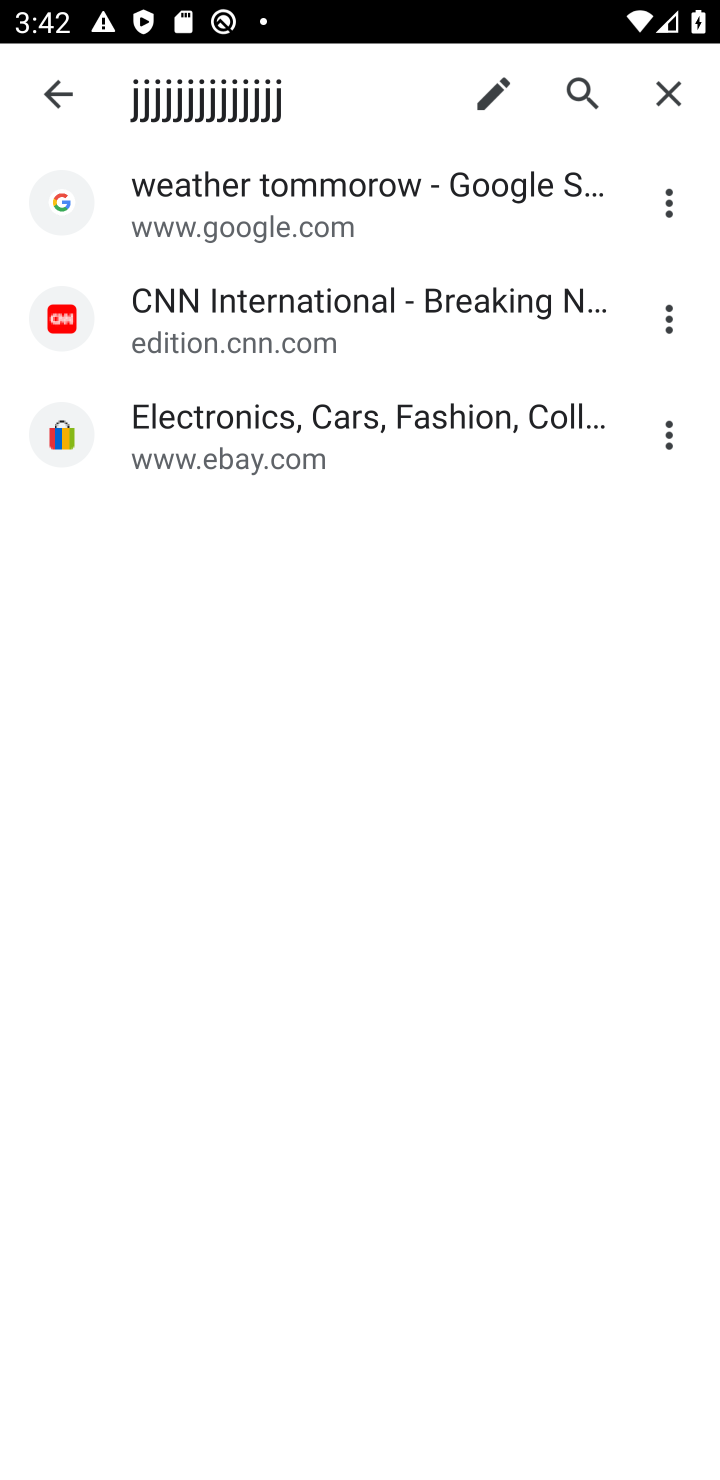
Step 29: task complete